Your task to perform on an android device: Go to Android settings Image 0: 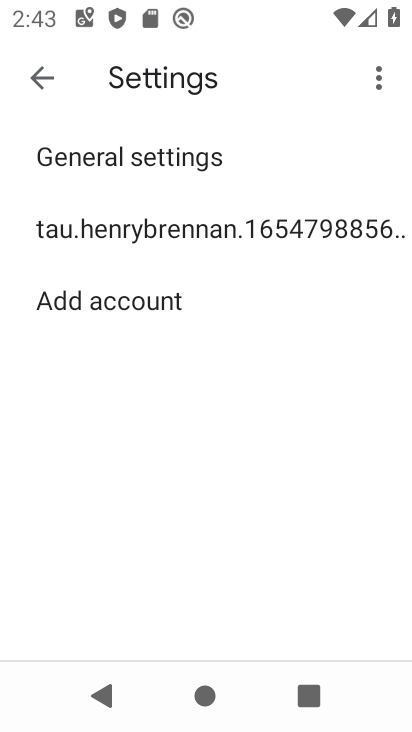
Step 0: press home button
Your task to perform on an android device: Go to Android settings Image 1: 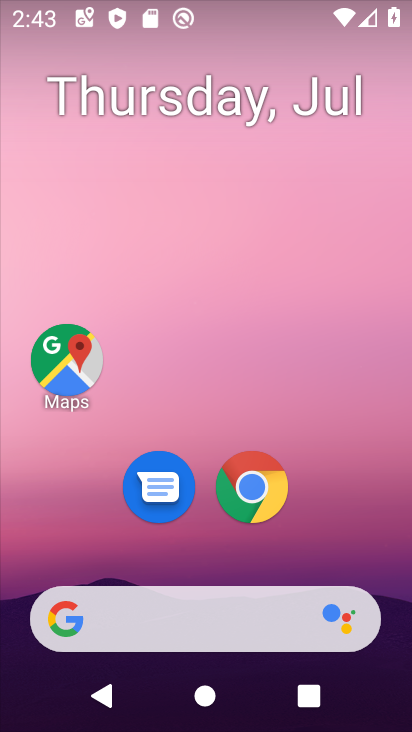
Step 1: drag from (369, 538) to (349, 178)
Your task to perform on an android device: Go to Android settings Image 2: 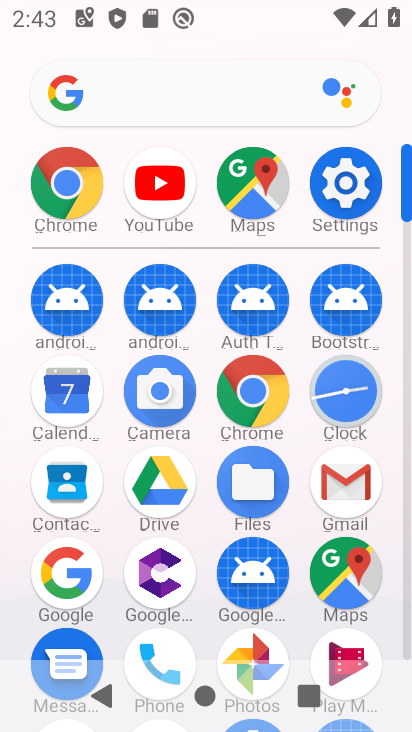
Step 2: click (339, 186)
Your task to perform on an android device: Go to Android settings Image 3: 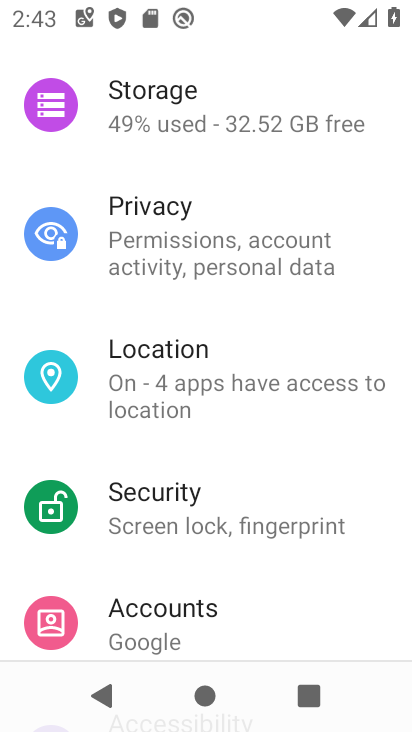
Step 3: drag from (361, 226) to (367, 328)
Your task to perform on an android device: Go to Android settings Image 4: 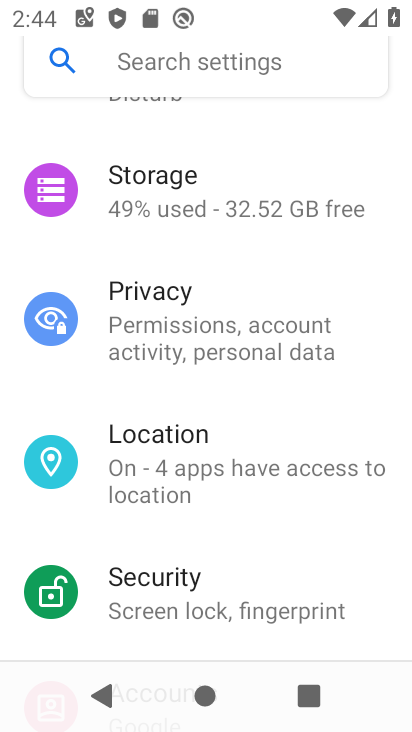
Step 4: drag from (384, 164) to (392, 343)
Your task to perform on an android device: Go to Android settings Image 5: 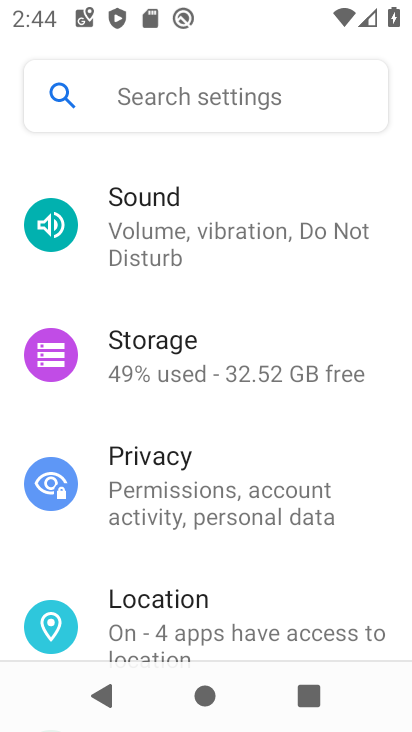
Step 5: drag from (375, 188) to (374, 362)
Your task to perform on an android device: Go to Android settings Image 6: 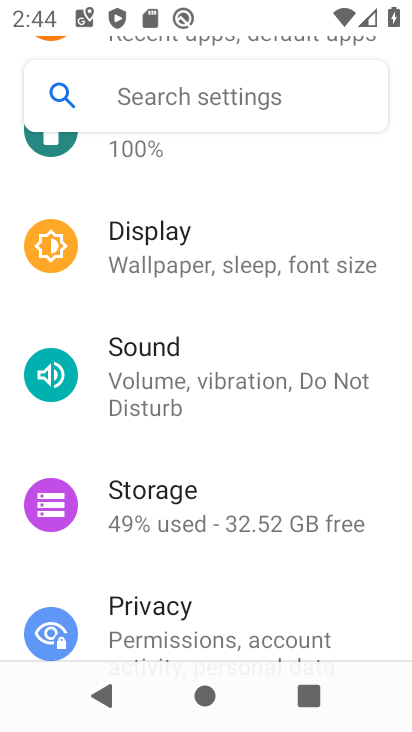
Step 6: drag from (373, 182) to (379, 369)
Your task to perform on an android device: Go to Android settings Image 7: 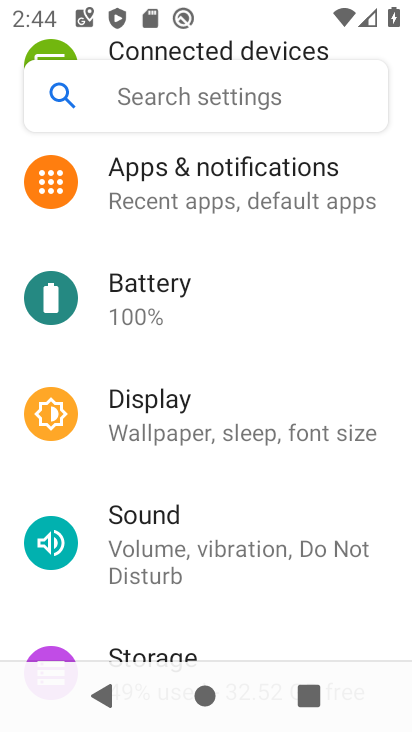
Step 7: drag from (376, 270) to (378, 448)
Your task to perform on an android device: Go to Android settings Image 8: 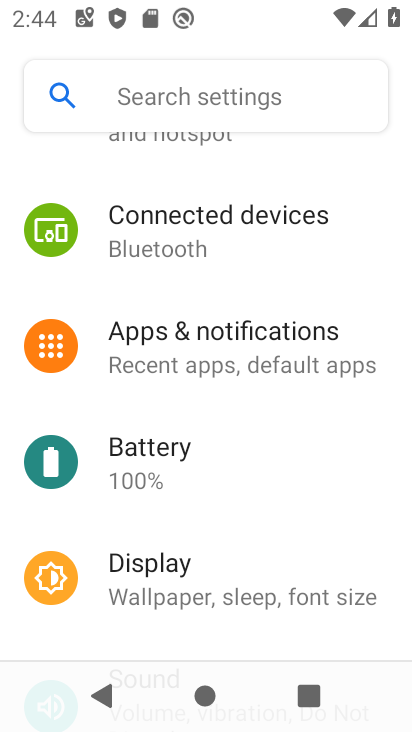
Step 8: drag from (353, 484) to (364, 347)
Your task to perform on an android device: Go to Android settings Image 9: 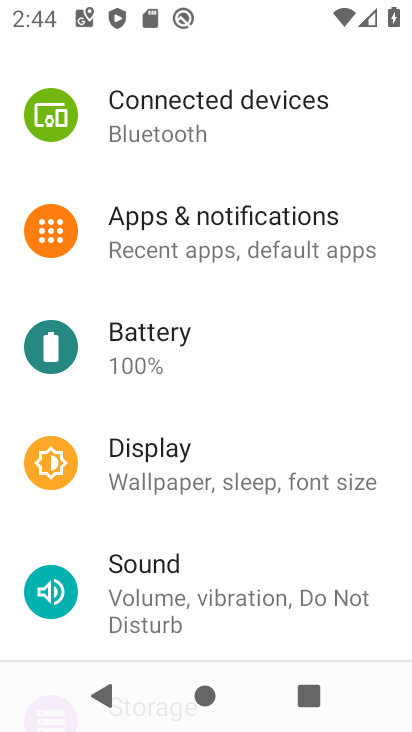
Step 9: drag from (363, 497) to (356, 358)
Your task to perform on an android device: Go to Android settings Image 10: 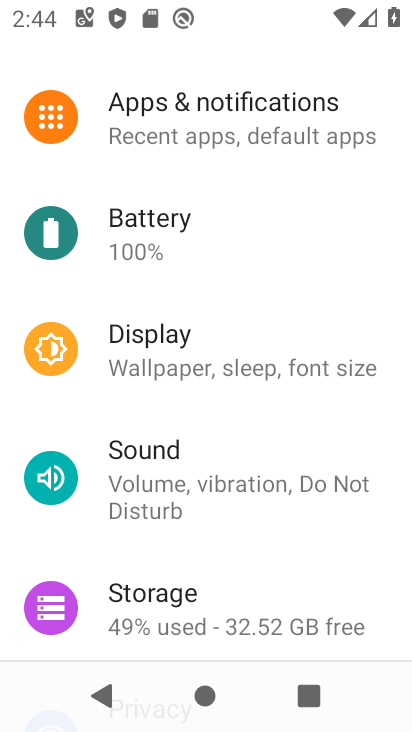
Step 10: drag from (354, 543) to (350, 303)
Your task to perform on an android device: Go to Android settings Image 11: 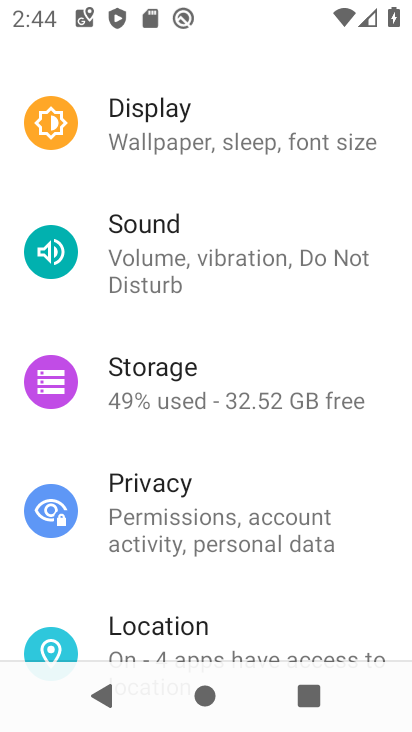
Step 11: drag from (355, 551) to (352, 331)
Your task to perform on an android device: Go to Android settings Image 12: 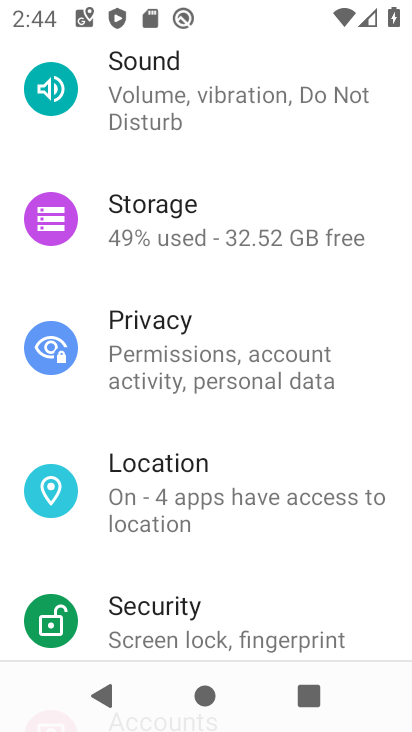
Step 12: drag from (364, 569) to (359, 368)
Your task to perform on an android device: Go to Android settings Image 13: 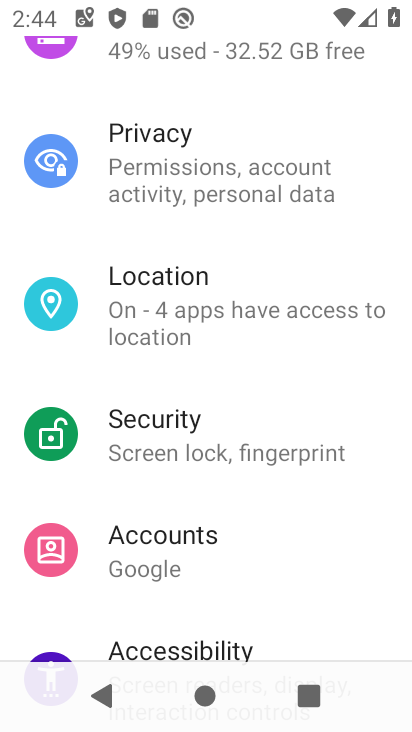
Step 13: drag from (356, 555) to (350, 417)
Your task to perform on an android device: Go to Android settings Image 14: 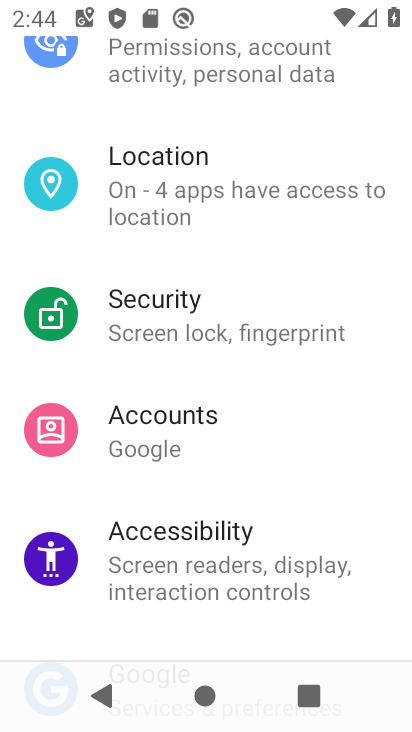
Step 14: drag from (346, 581) to (347, 415)
Your task to perform on an android device: Go to Android settings Image 15: 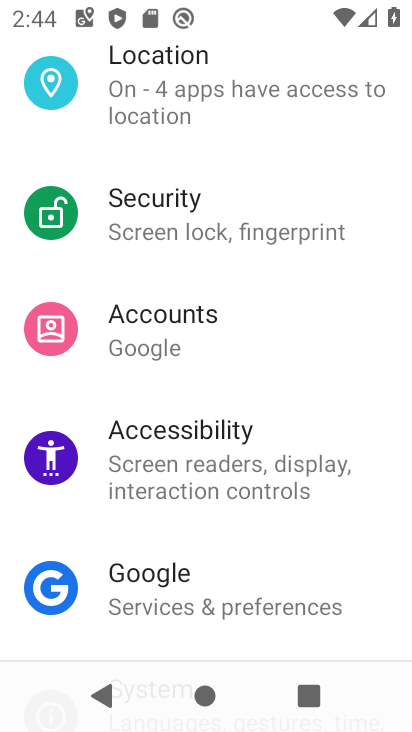
Step 15: drag from (347, 538) to (351, 393)
Your task to perform on an android device: Go to Android settings Image 16: 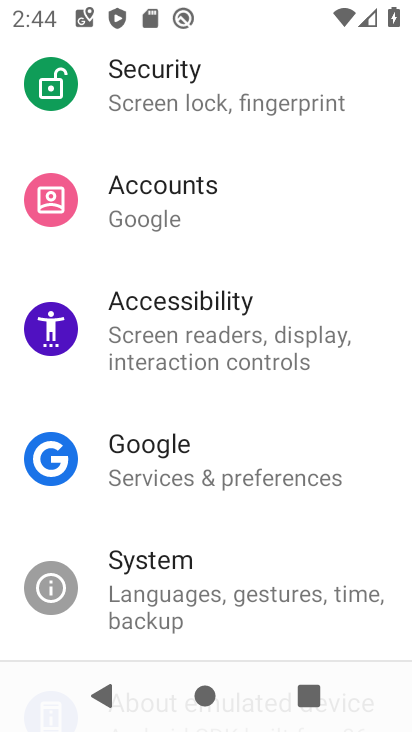
Step 16: click (355, 584)
Your task to perform on an android device: Go to Android settings Image 17: 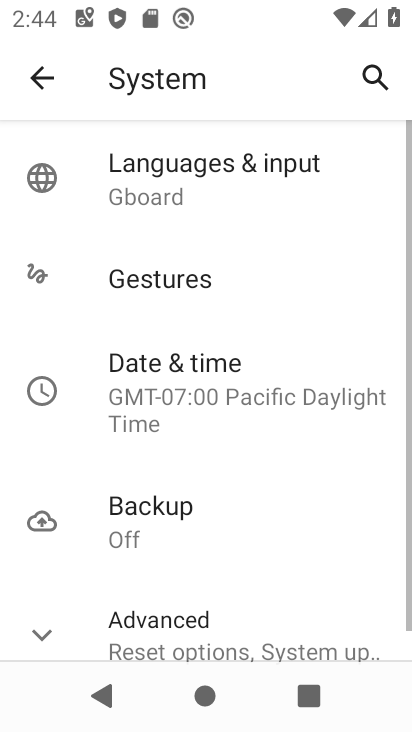
Step 17: drag from (355, 579) to (356, 493)
Your task to perform on an android device: Go to Android settings Image 18: 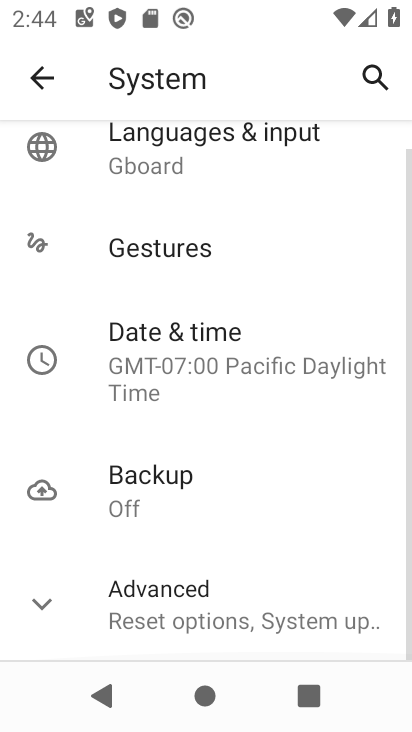
Step 18: click (315, 630)
Your task to perform on an android device: Go to Android settings Image 19: 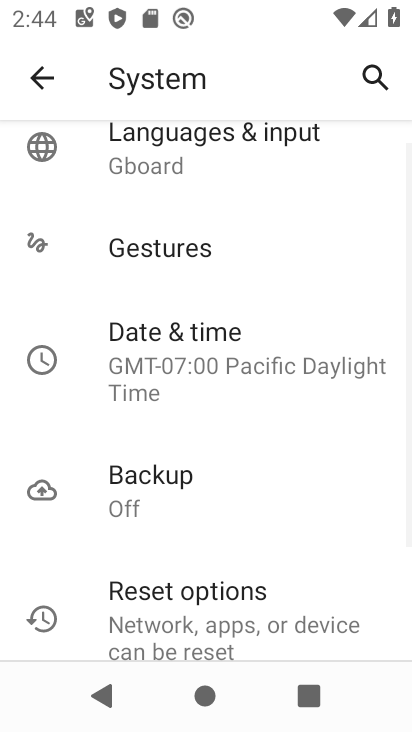
Step 19: task complete